Your task to perform on an android device: Go to Yahoo.com Image 0: 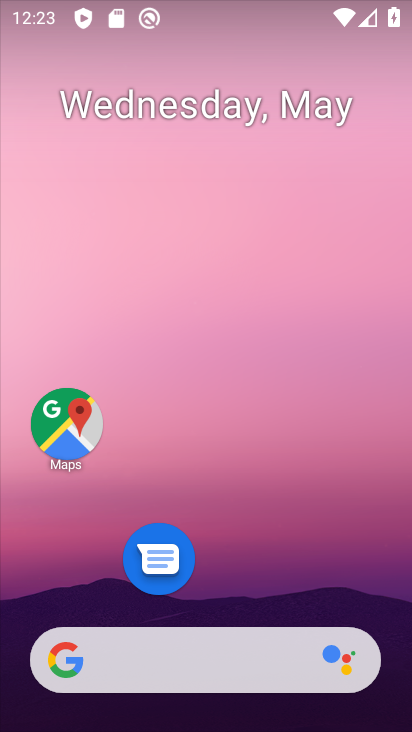
Step 0: drag from (279, 574) to (227, 9)
Your task to perform on an android device: Go to Yahoo.com Image 1: 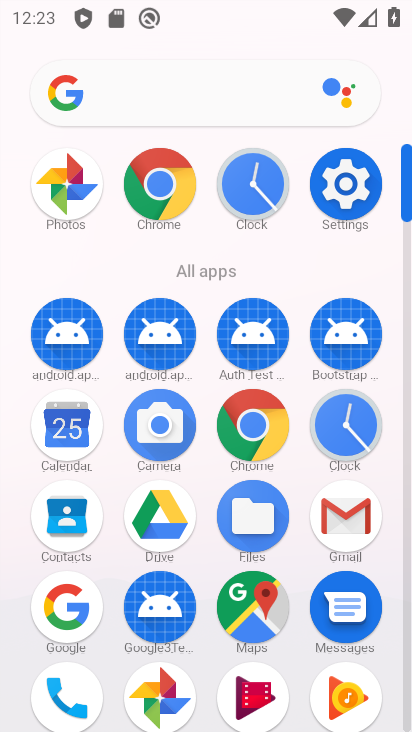
Step 1: click (147, 195)
Your task to perform on an android device: Go to Yahoo.com Image 2: 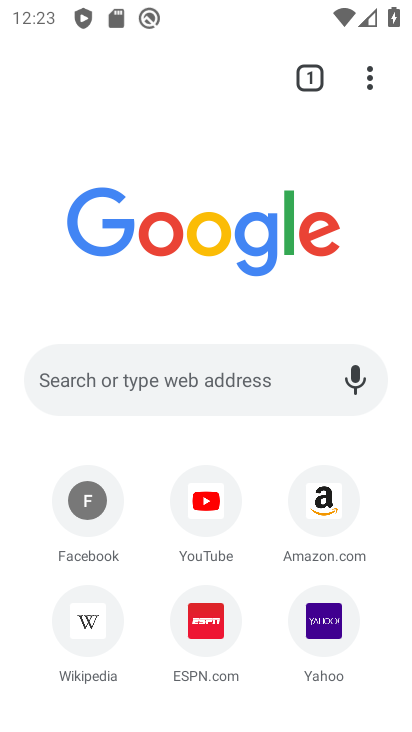
Step 2: click (147, 195)
Your task to perform on an android device: Go to Yahoo.com Image 3: 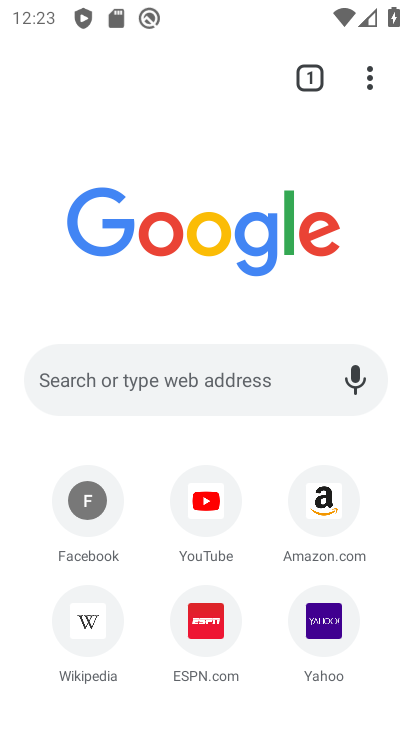
Step 3: click (317, 646)
Your task to perform on an android device: Go to Yahoo.com Image 4: 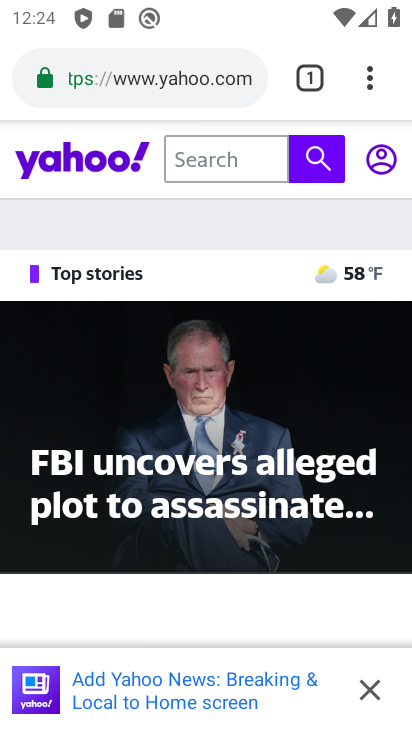
Step 4: task complete